Your task to perform on an android device: find snoozed emails in the gmail app Image 0: 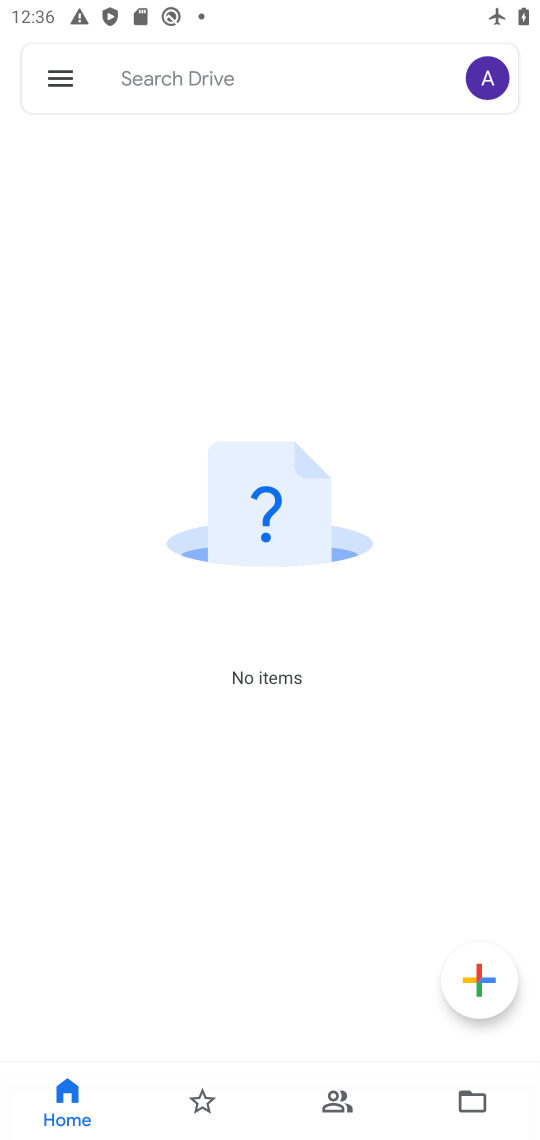
Step 0: press back button
Your task to perform on an android device: find snoozed emails in the gmail app Image 1: 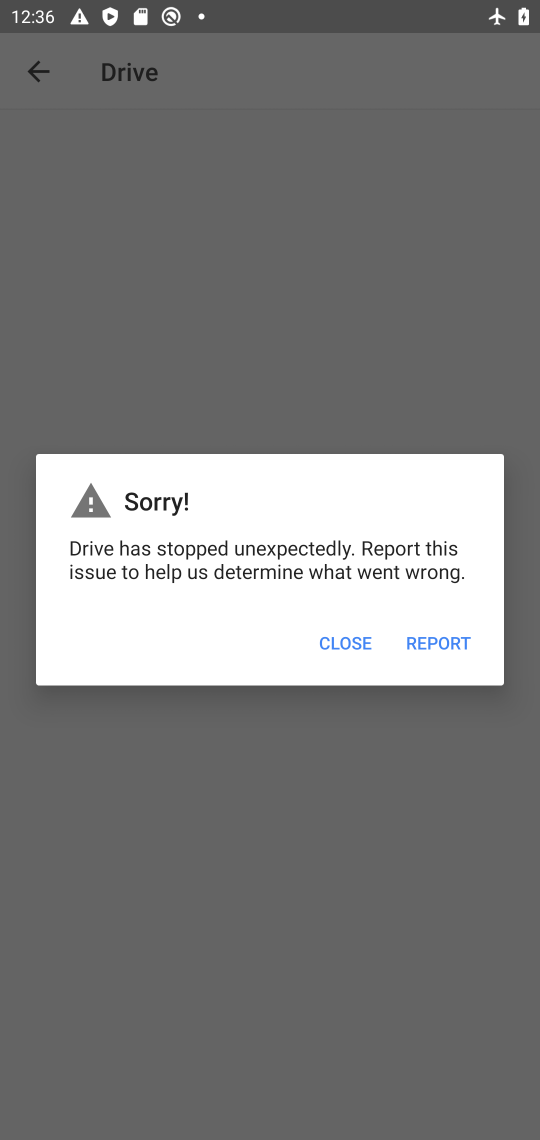
Step 1: press home button
Your task to perform on an android device: find snoozed emails in the gmail app Image 2: 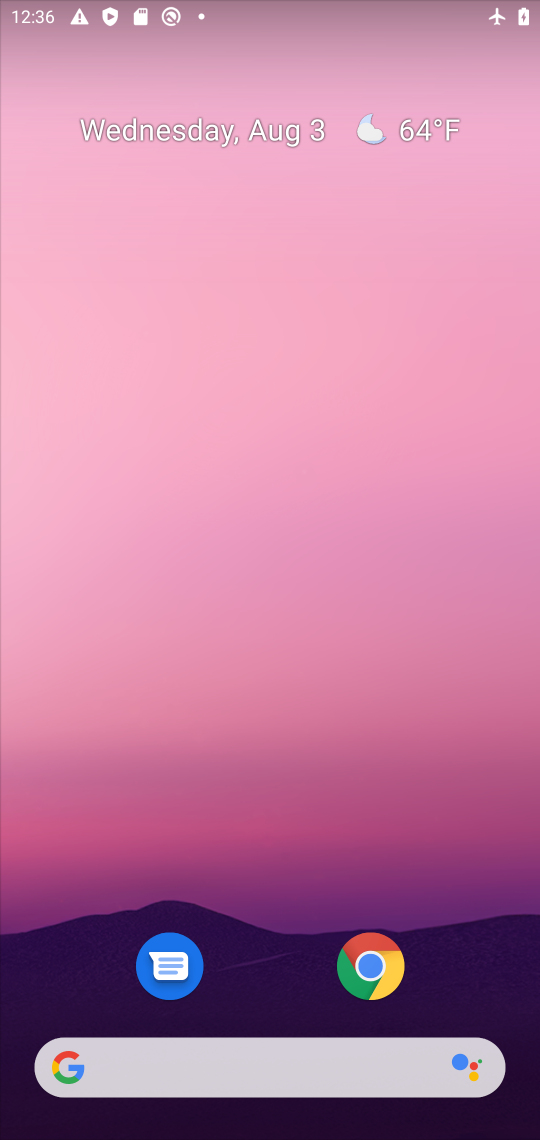
Step 2: drag from (263, 975) to (259, 325)
Your task to perform on an android device: find snoozed emails in the gmail app Image 3: 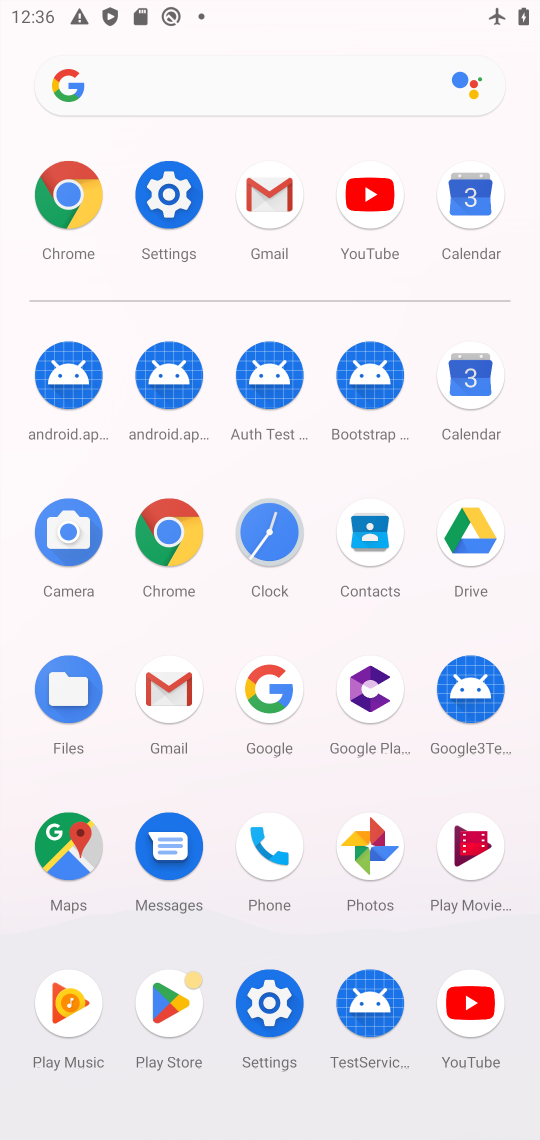
Step 3: click (271, 223)
Your task to perform on an android device: find snoozed emails in the gmail app Image 4: 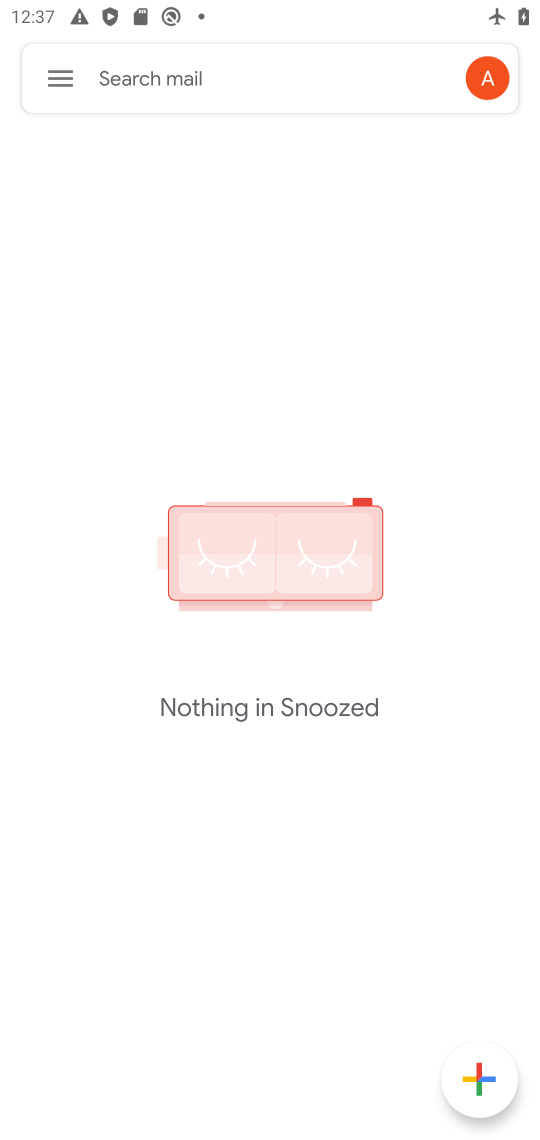
Step 4: click (51, 80)
Your task to perform on an android device: find snoozed emails in the gmail app Image 5: 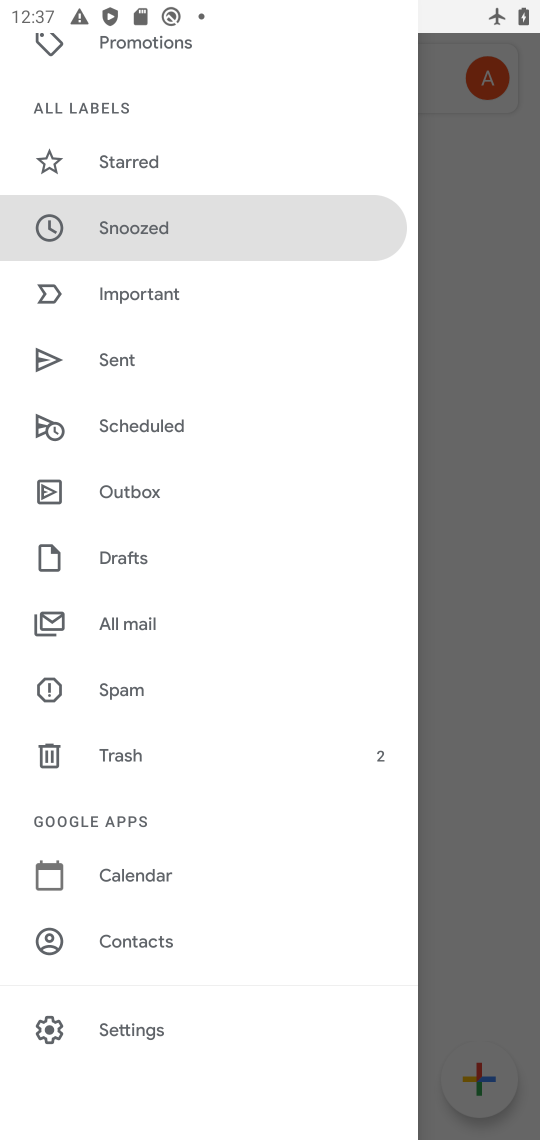
Step 5: click (188, 210)
Your task to perform on an android device: find snoozed emails in the gmail app Image 6: 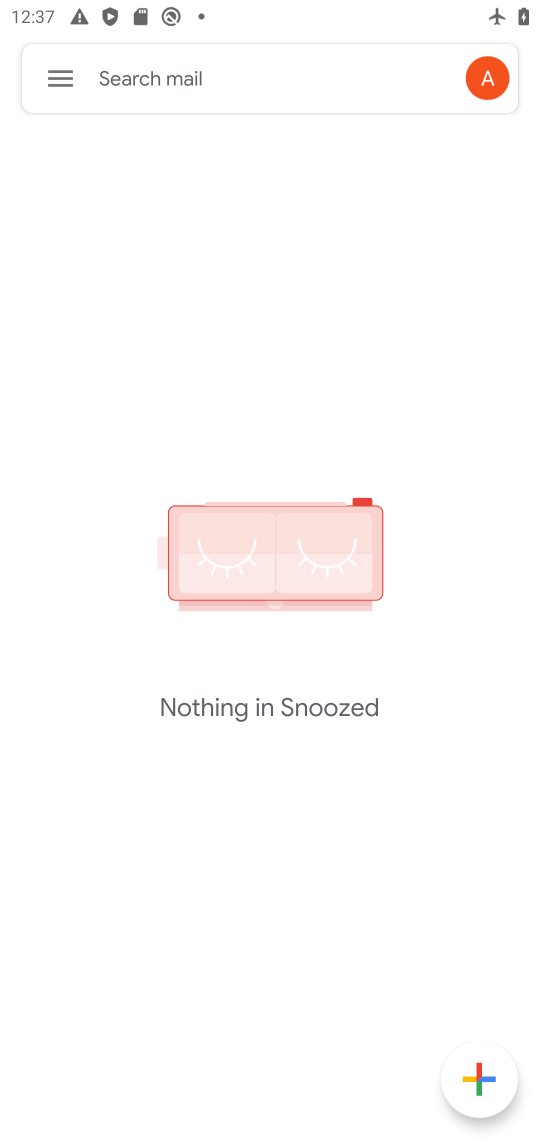
Step 6: task complete